Your task to perform on an android device: turn notification dots on Image 0: 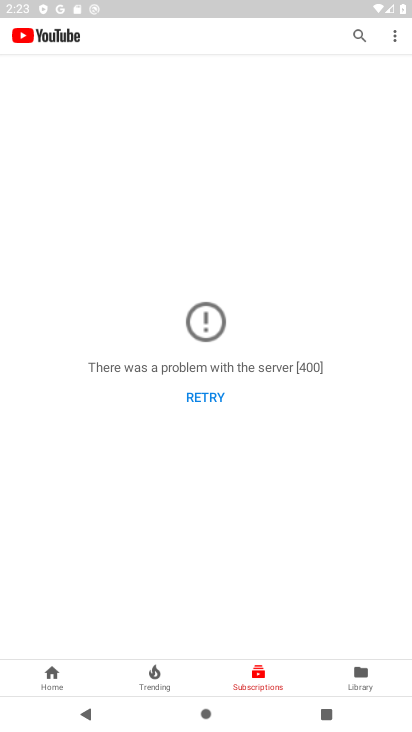
Step 0: press home button
Your task to perform on an android device: turn notification dots on Image 1: 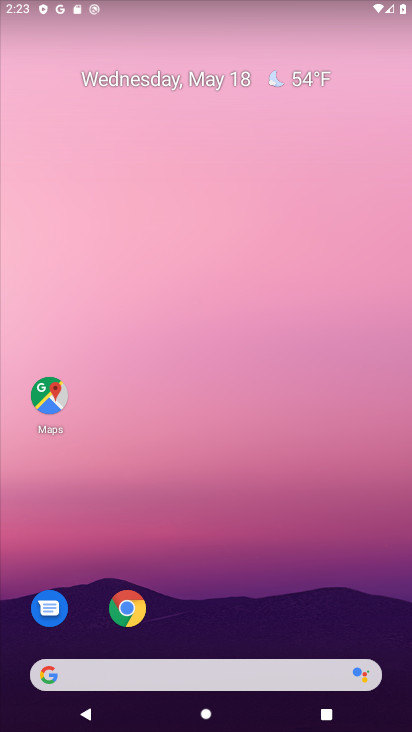
Step 1: drag from (271, 626) to (278, 35)
Your task to perform on an android device: turn notification dots on Image 2: 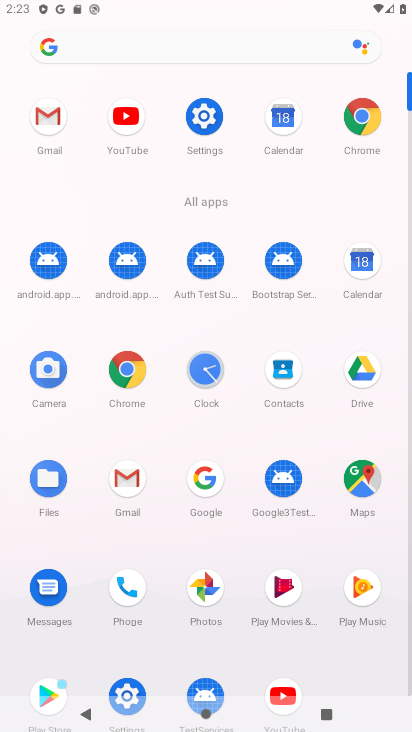
Step 2: click (199, 128)
Your task to perform on an android device: turn notification dots on Image 3: 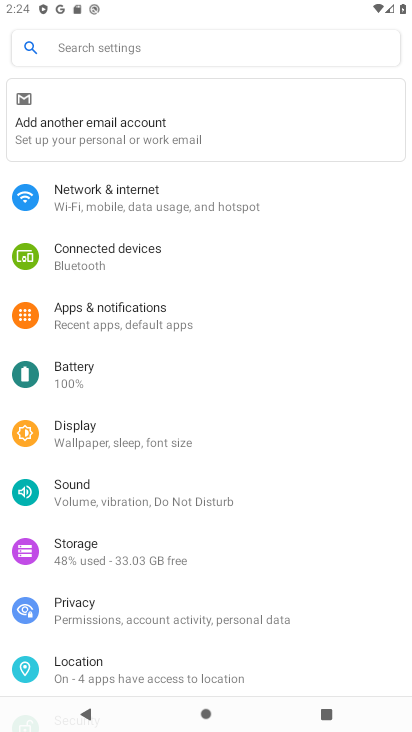
Step 3: click (173, 315)
Your task to perform on an android device: turn notification dots on Image 4: 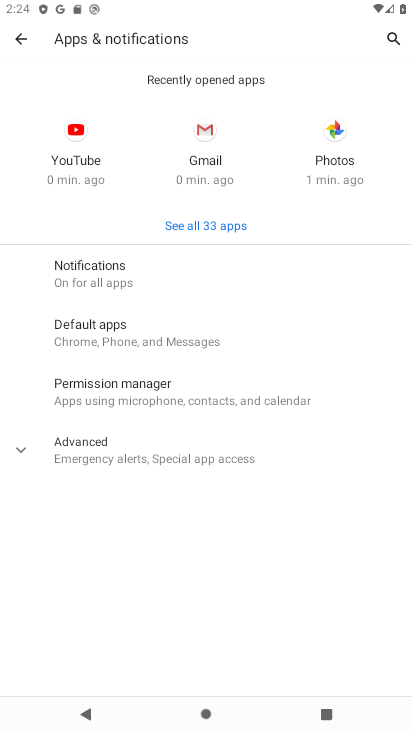
Step 4: click (67, 285)
Your task to perform on an android device: turn notification dots on Image 5: 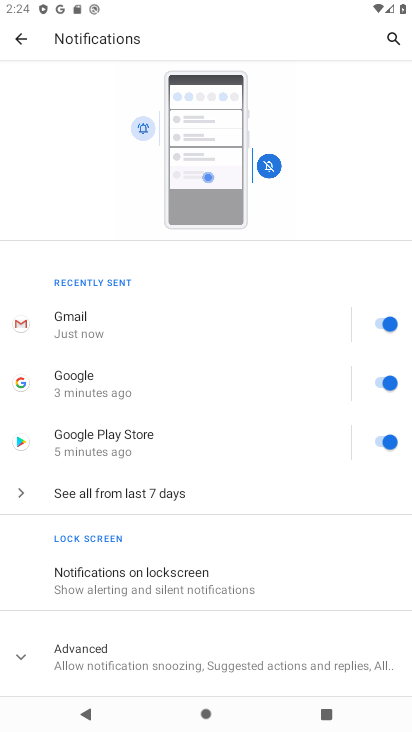
Step 5: drag from (47, 600) to (60, 342)
Your task to perform on an android device: turn notification dots on Image 6: 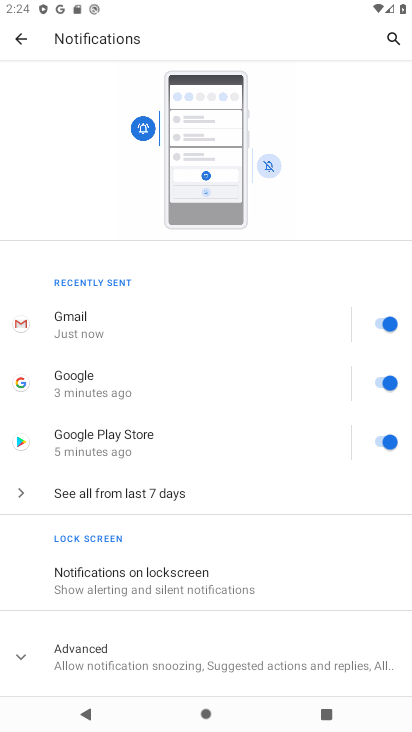
Step 6: click (16, 656)
Your task to perform on an android device: turn notification dots on Image 7: 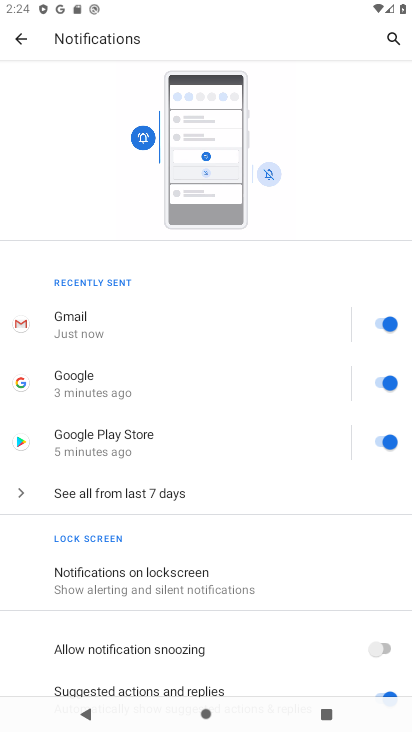
Step 7: task complete